Your task to perform on an android device: open sync settings in chrome Image 0: 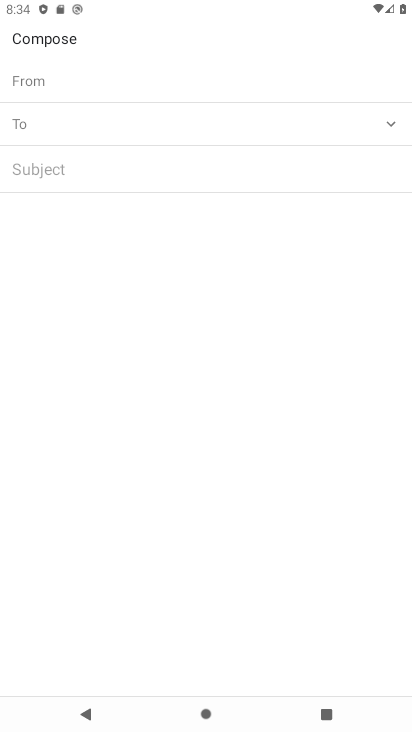
Step 0: drag from (326, 619) to (264, 352)
Your task to perform on an android device: open sync settings in chrome Image 1: 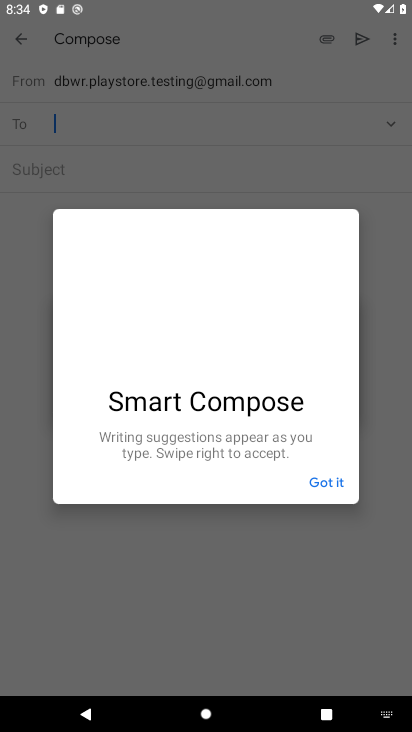
Step 1: press home button
Your task to perform on an android device: open sync settings in chrome Image 2: 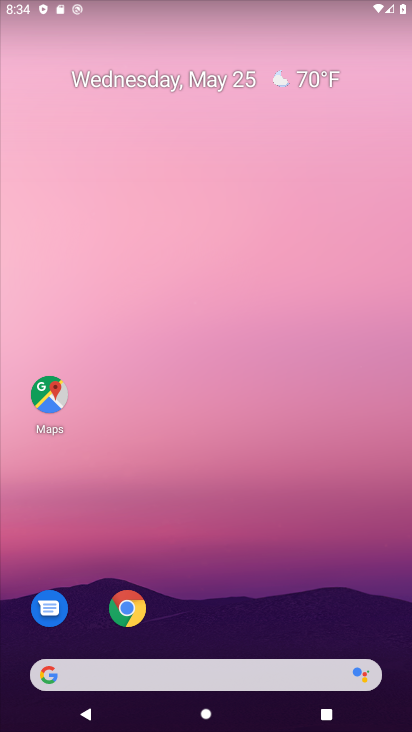
Step 2: click (119, 606)
Your task to perform on an android device: open sync settings in chrome Image 3: 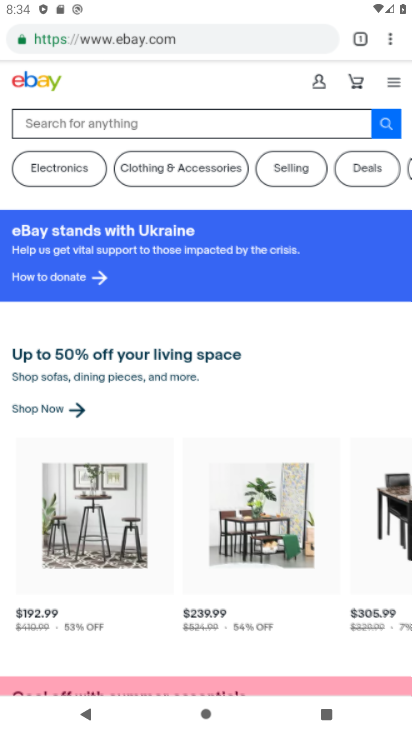
Step 3: click (388, 39)
Your task to perform on an android device: open sync settings in chrome Image 4: 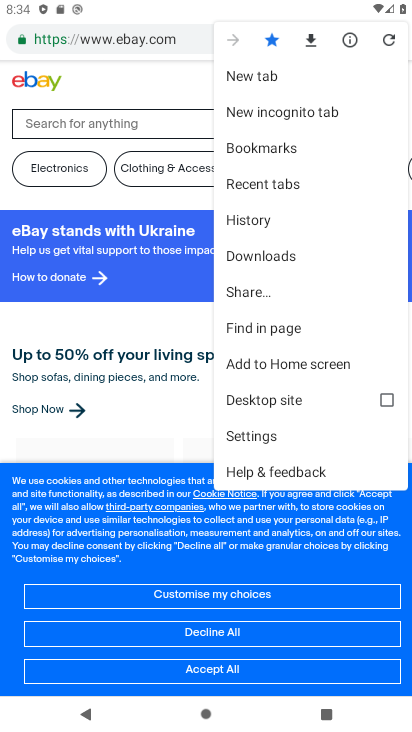
Step 4: click (283, 438)
Your task to perform on an android device: open sync settings in chrome Image 5: 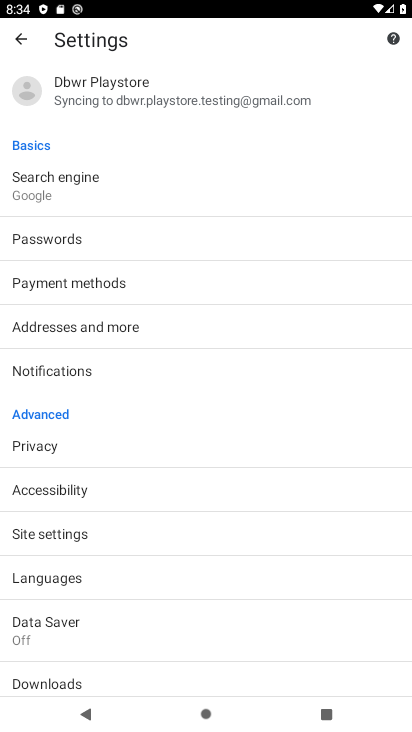
Step 5: click (168, 541)
Your task to perform on an android device: open sync settings in chrome Image 6: 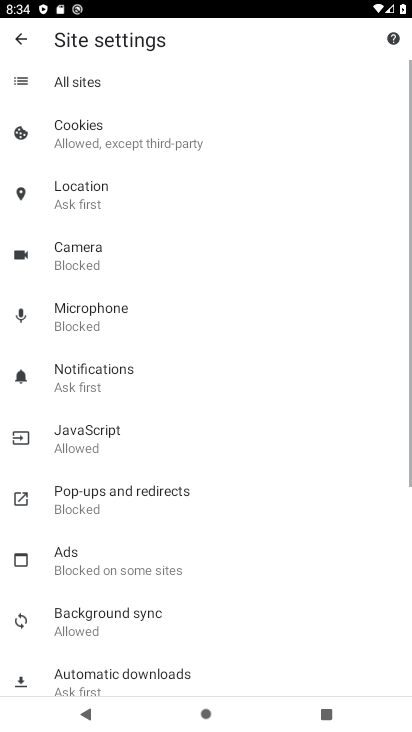
Step 6: click (193, 624)
Your task to perform on an android device: open sync settings in chrome Image 7: 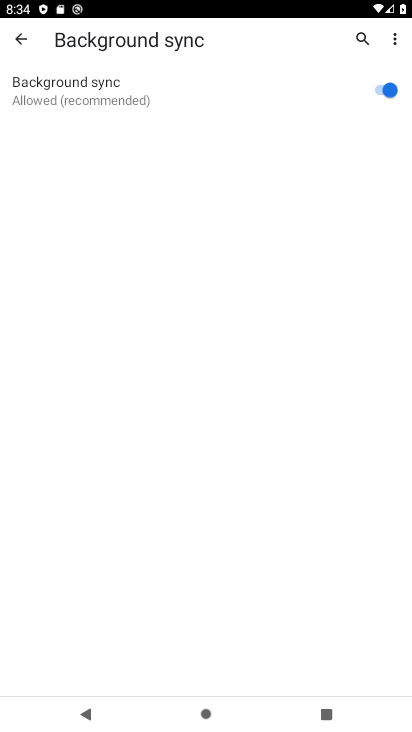
Step 7: task complete